Your task to perform on an android device: open chrome privacy settings Image 0: 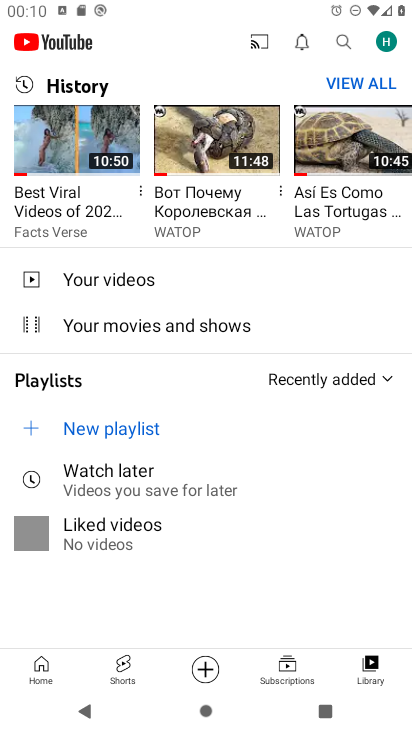
Step 0: press home button
Your task to perform on an android device: open chrome privacy settings Image 1: 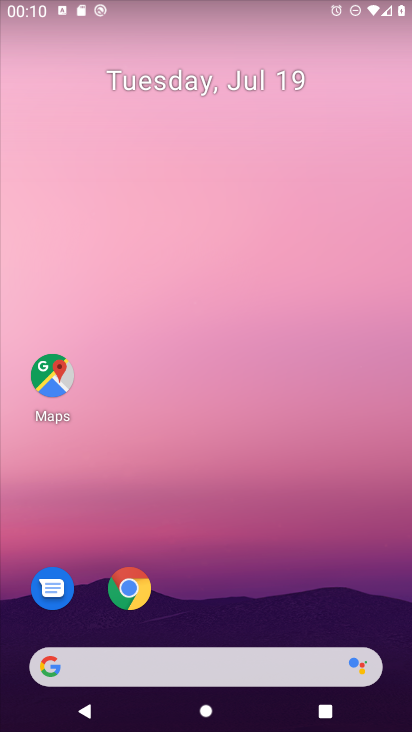
Step 1: click (127, 592)
Your task to perform on an android device: open chrome privacy settings Image 2: 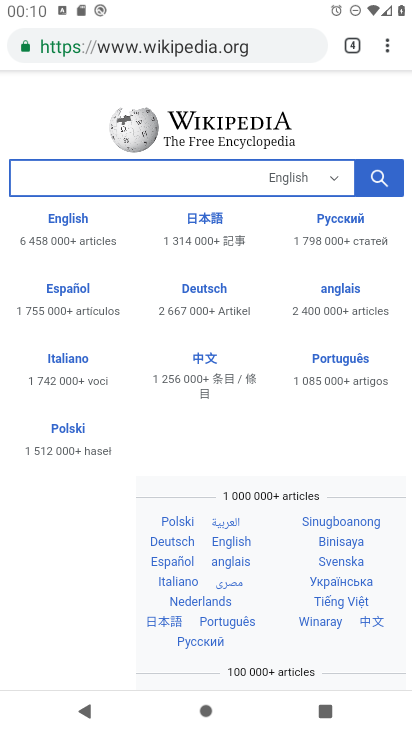
Step 2: click (385, 50)
Your task to perform on an android device: open chrome privacy settings Image 3: 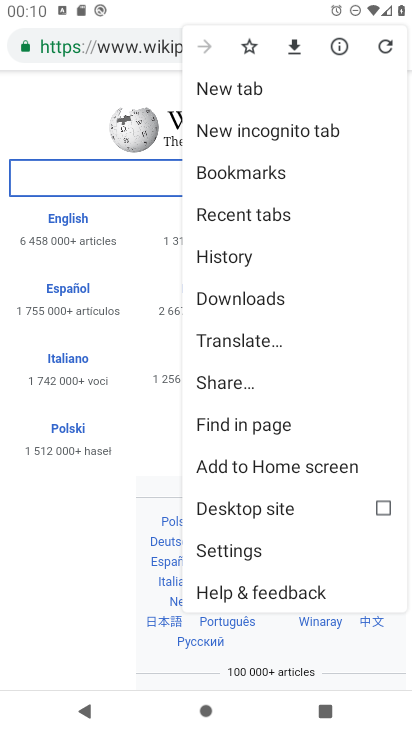
Step 3: click (232, 552)
Your task to perform on an android device: open chrome privacy settings Image 4: 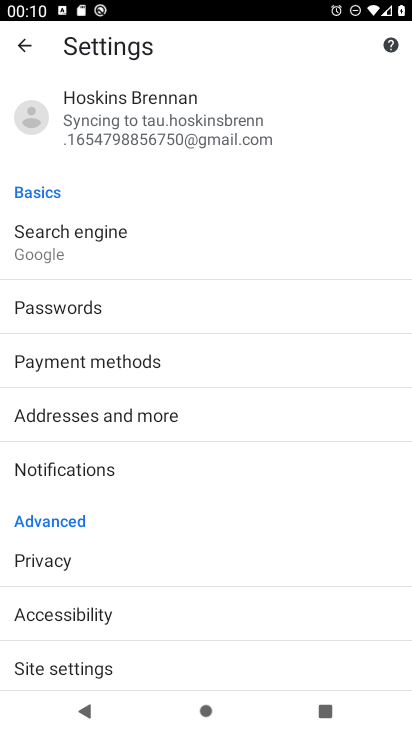
Step 4: click (63, 566)
Your task to perform on an android device: open chrome privacy settings Image 5: 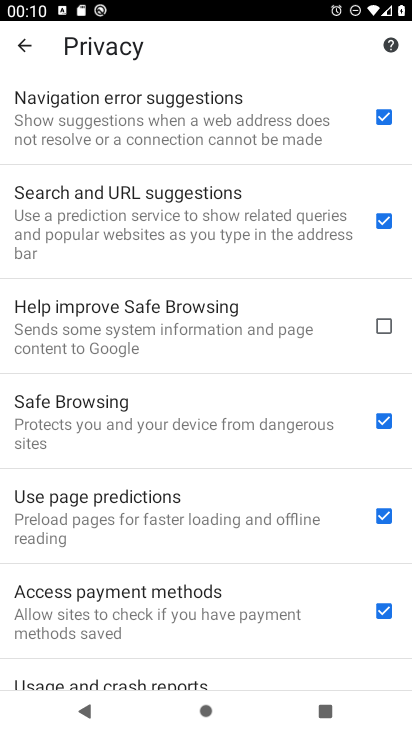
Step 5: task complete